Your task to perform on an android device: open chrome and create a bookmark for the current page Image 0: 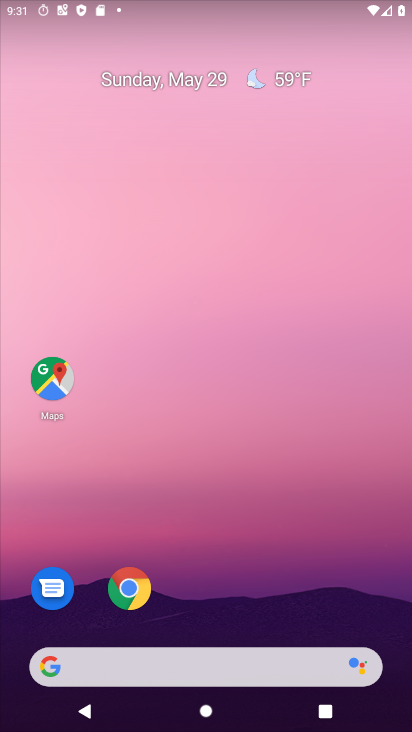
Step 0: click (130, 593)
Your task to perform on an android device: open chrome and create a bookmark for the current page Image 1: 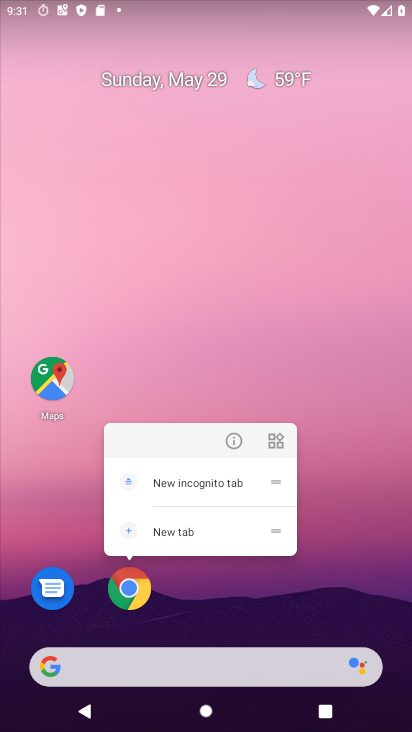
Step 1: click (128, 578)
Your task to perform on an android device: open chrome and create a bookmark for the current page Image 2: 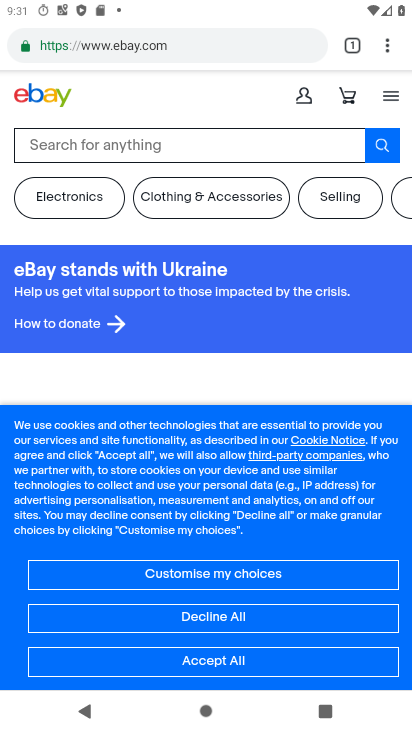
Step 2: click (389, 50)
Your task to perform on an android device: open chrome and create a bookmark for the current page Image 3: 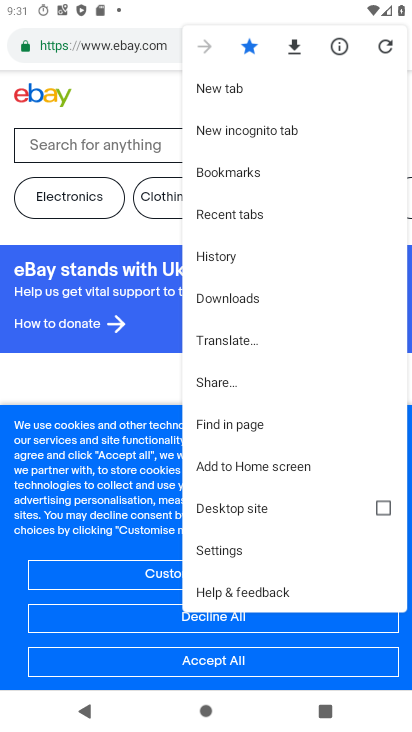
Step 3: task complete